Your task to perform on an android device: Open Wikipedia Image 0: 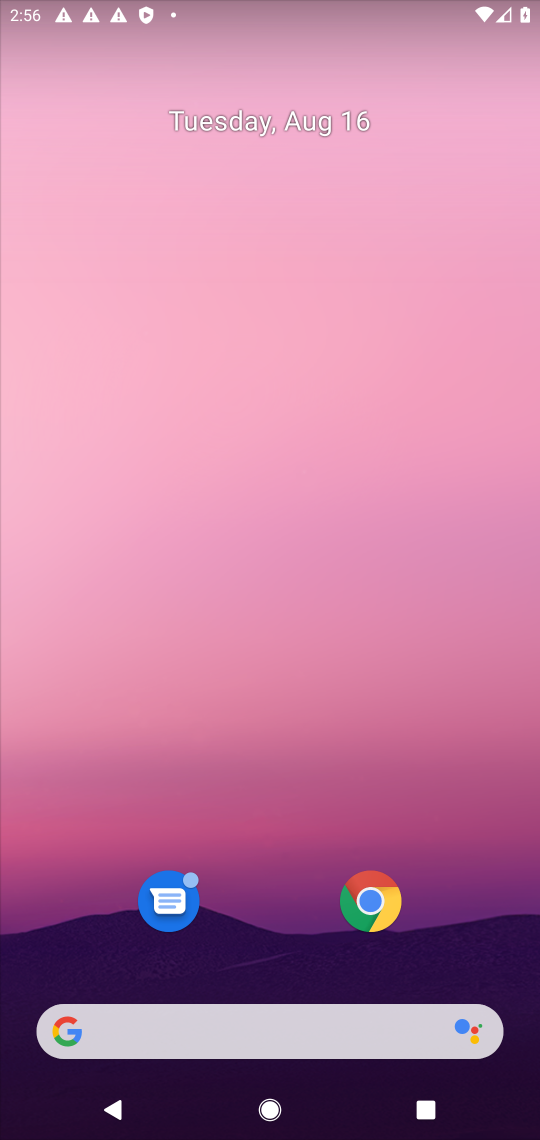
Step 0: click (362, 894)
Your task to perform on an android device: Open Wikipedia Image 1: 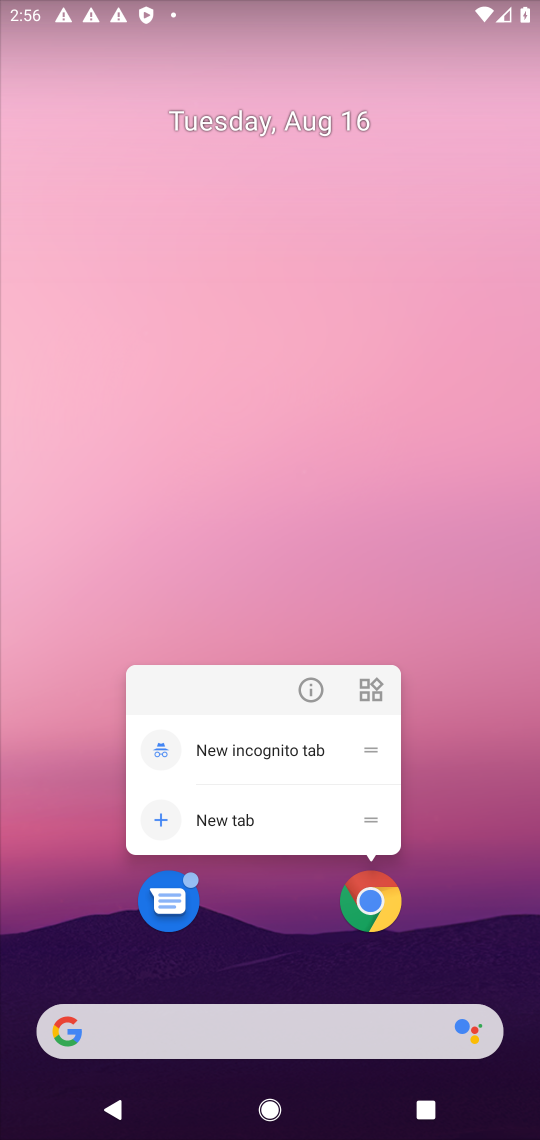
Step 1: click (371, 908)
Your task to perform on an android device: Open Wikipedia Image 2: 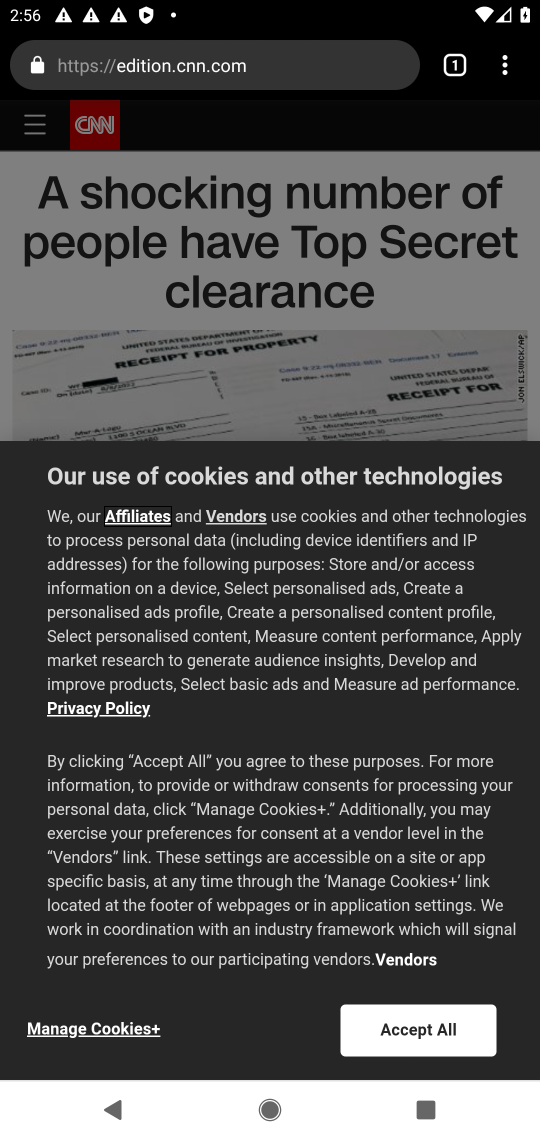
Step 2: click (260, 65)
Your task to perform on an android device: Open Wikipedia Image 3: 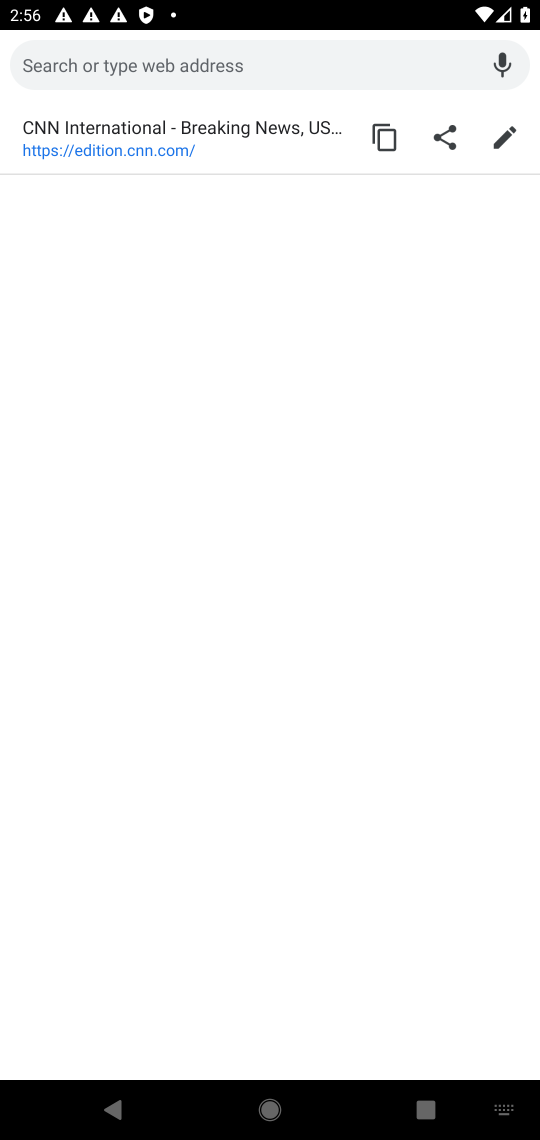
Step 3: type "wikipedia"
Your task to perform on an android device: Open Wikipedia Image 4: 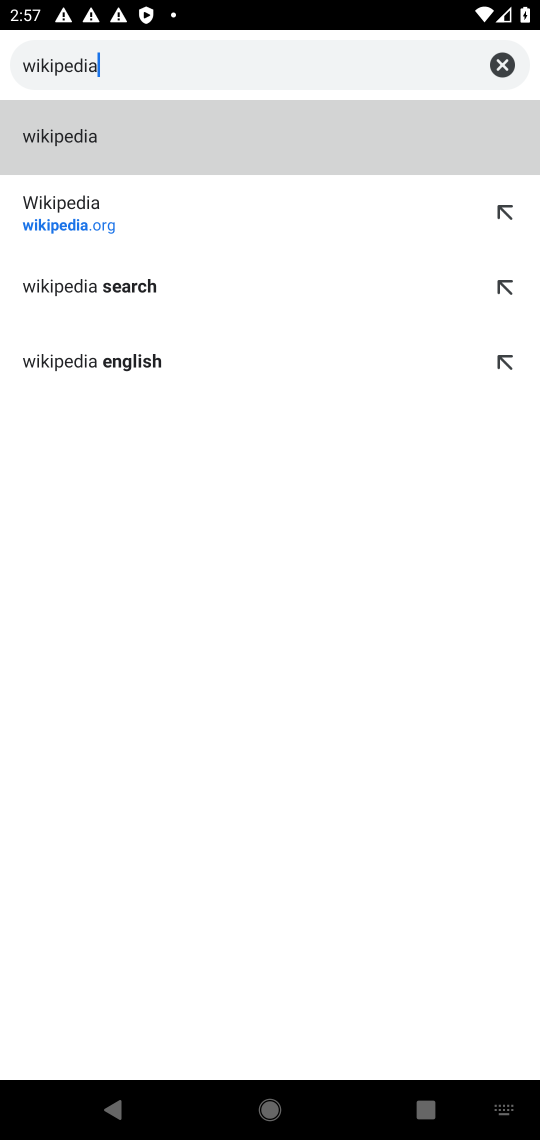
Step 4: click (93, 127)
Your task to perform on an android device: Open Wikipedia Image 5: 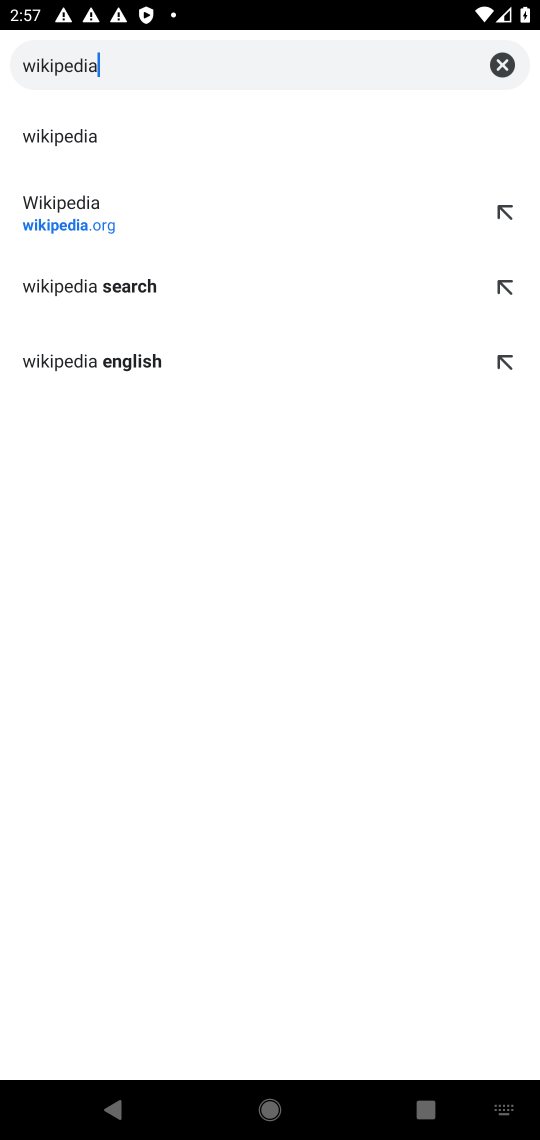
Step 5: click (118, 135)
Your task to perform on an android device: Open Wikipedia Image 6: 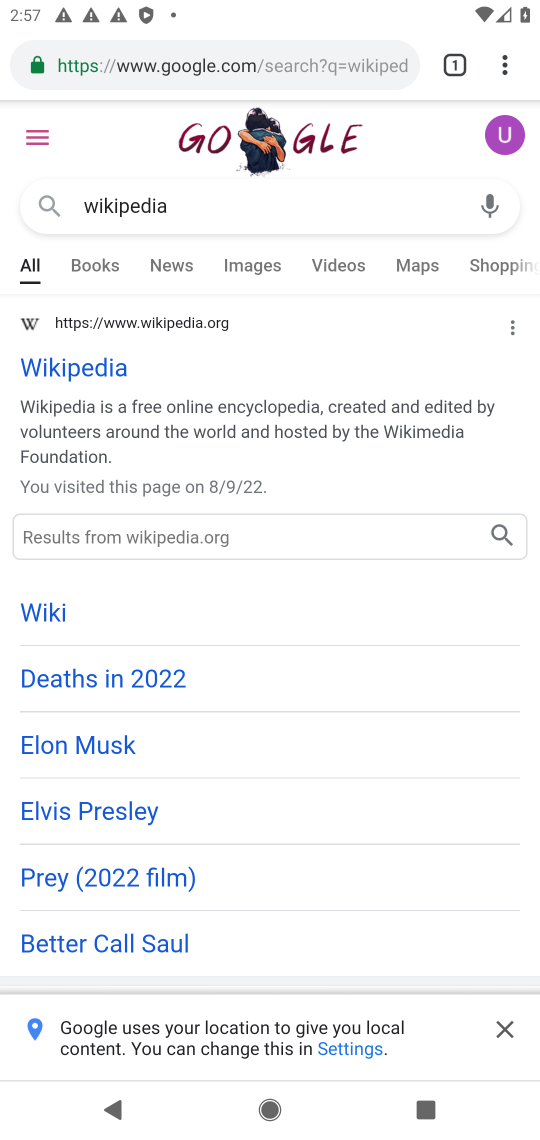
Step 6: task complete